Your task to perform on an android device: turn off translation in the chrome app Image 0: 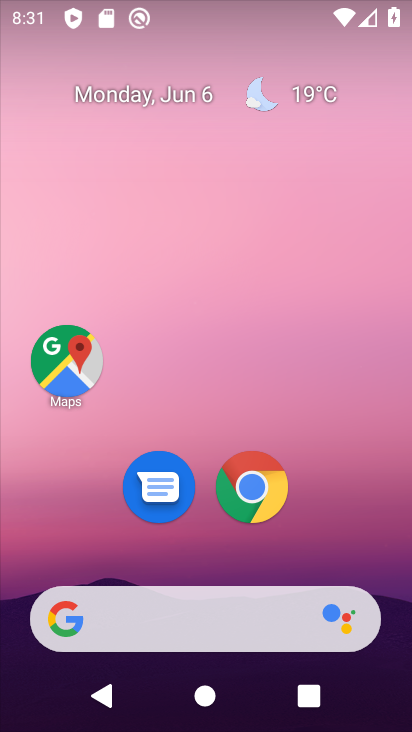
Step 0: click (263, 480)
Your task to perform on an android device: turn off translation in the chrome app Image 1: 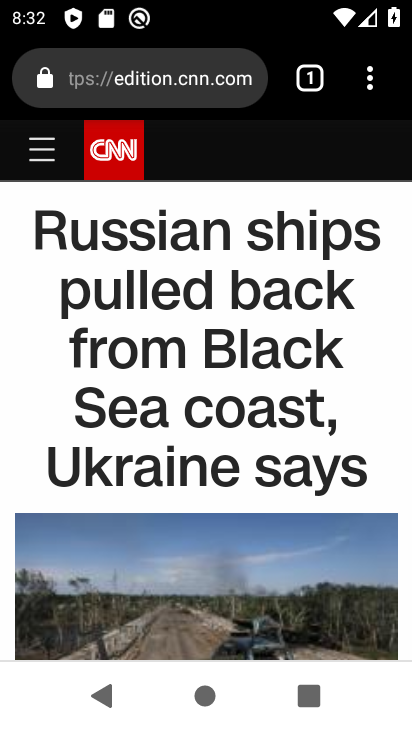
Step 1: click (372, 76)
Your task to perform on an android device: turn off translation in the chrome app Image 2: 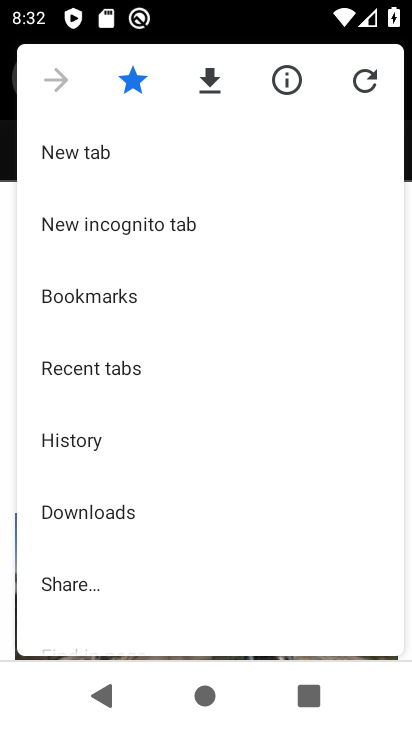
Step 2: drag from (197, 581) to (161, 86)
Your task to perform on an android device: turn off translation in the chrome app Image 3: 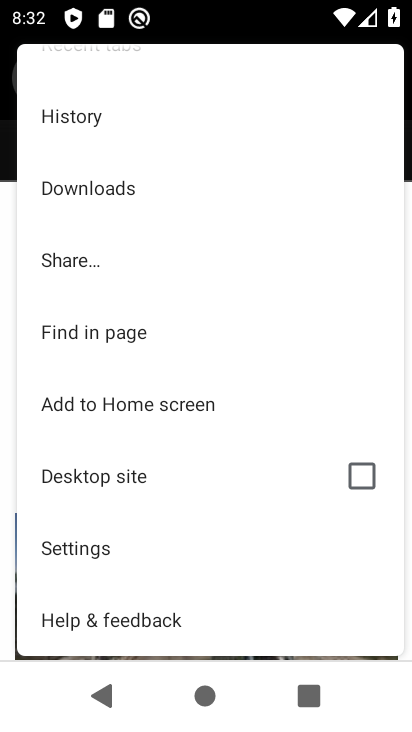
Step 3: click (125, 552)
Your task to perform on an android device: turn off translation in the chrome app Image 4: 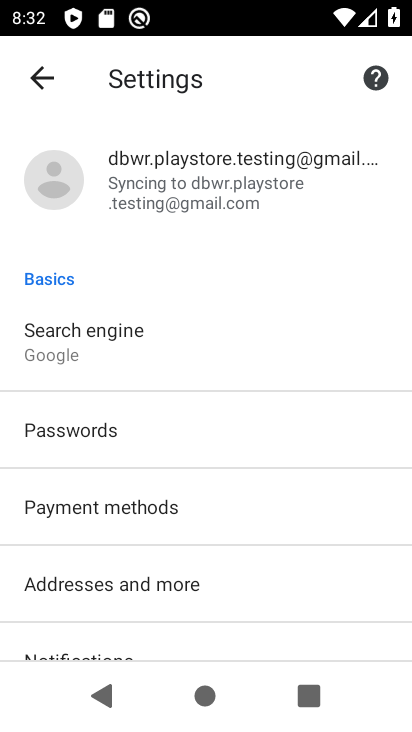
Step 4: drag from (224, 474) to (213, 220)
Your task to perform on an android device: turn off translation in the chrome app Image 5: 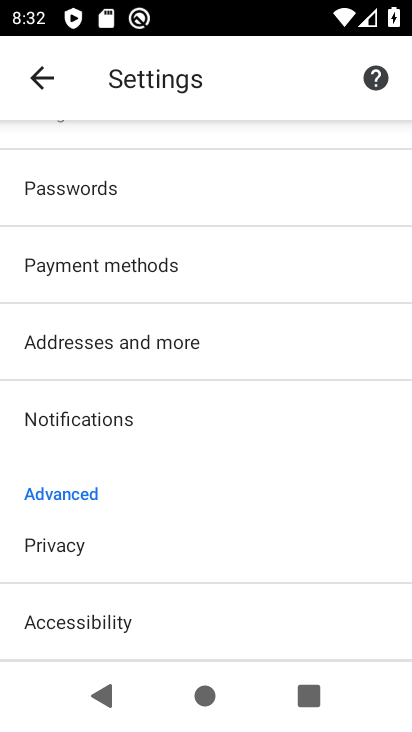
Step 5: drag from (188, 598) to (195, 195)
Your task to perform on an android device: turn off translation in the chrome app Image 6: 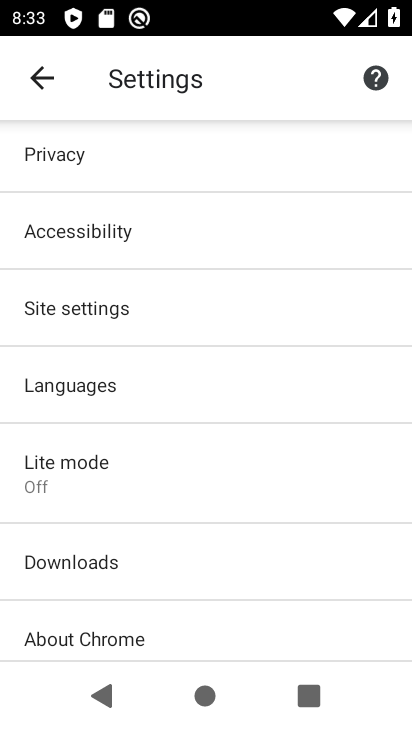
Step 6: click (118, 388)
Your task to perform on an android device: turn off translation in the chrome app Image 7: 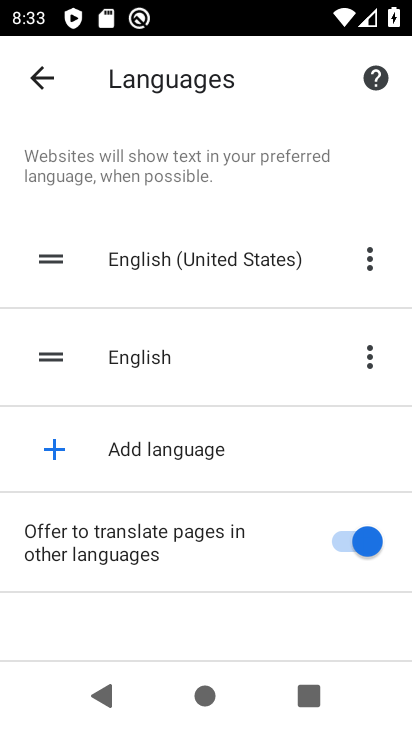
Step 7: click (342, 543)
Your task to perform on an android device: turn off translation in the chrome app Image 8: 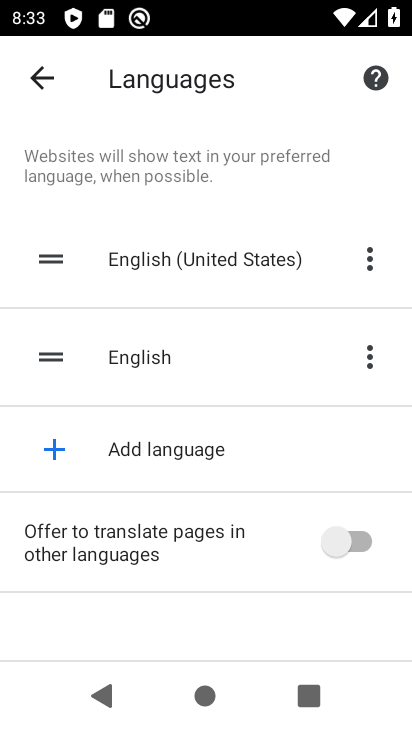
Step 8: task complete